Your task to perform on an android device: Show me the alarms in the clock app Image 0: 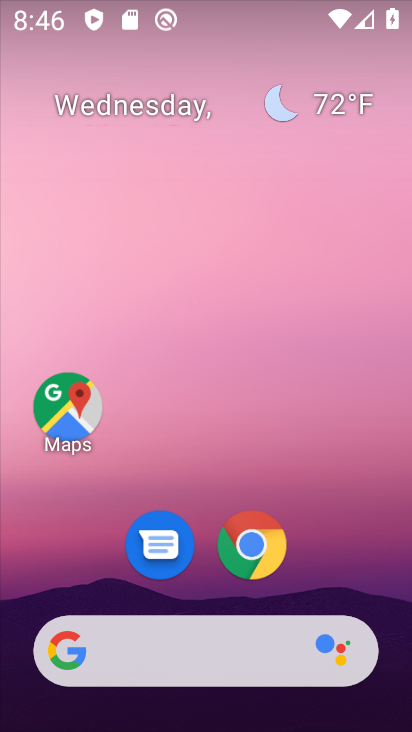
Step 0: drag from (299, 682) to (194, 127)
Your task to perform on an android device: Show me the alarms in the clock app Image 1: 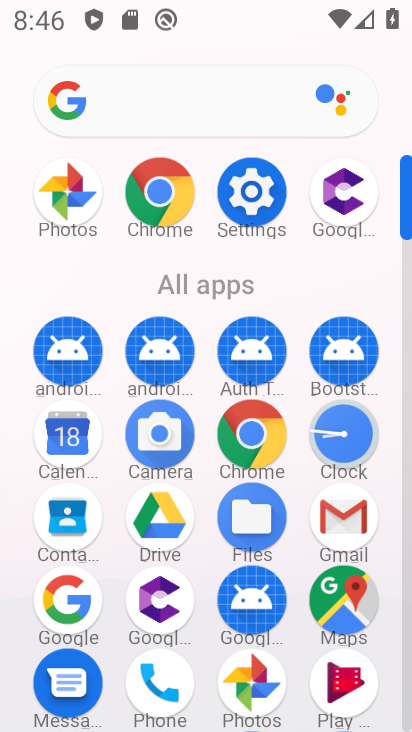
Step 1: click (337, 419)
Your task to perform on an android device: Show me the alarms in the clock app Image 2: 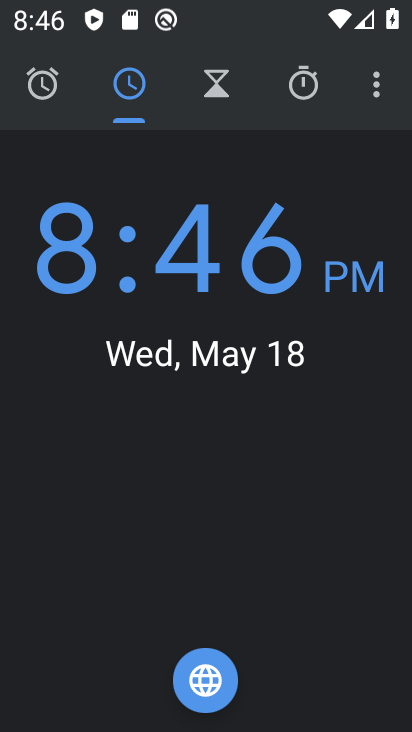
Step 2: click (50, 98)
Your task to perform on an android device: Show me the alarms in the clock app Image 3: 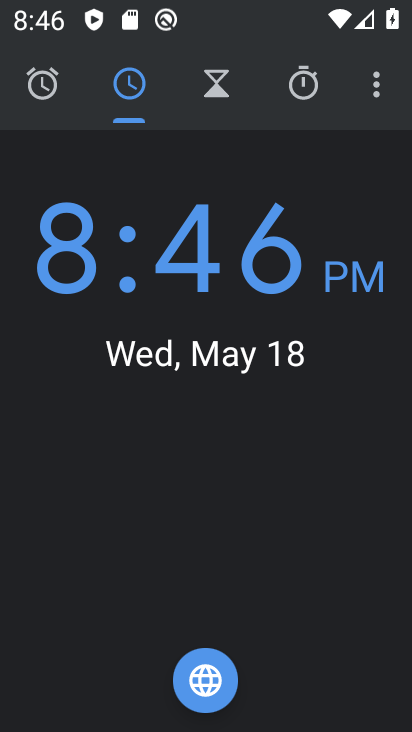
Step 3: click (40, 88)
Your task to perform on an android device: Show me the alarms in the clock app Image 4: 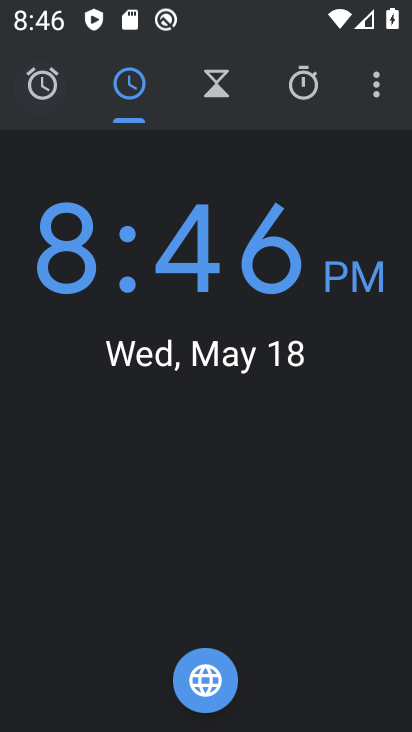
Step 4: click (40, 88)
Your task to perform on an android device: Show me the alarms in the clock app Image 5: 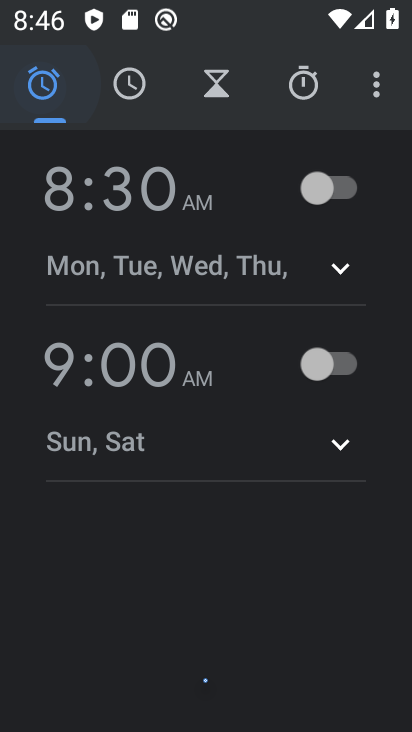
Step 5: click (40, 88)
Your task to perform on an android device: Show me the alarms in the clock app Image 6: 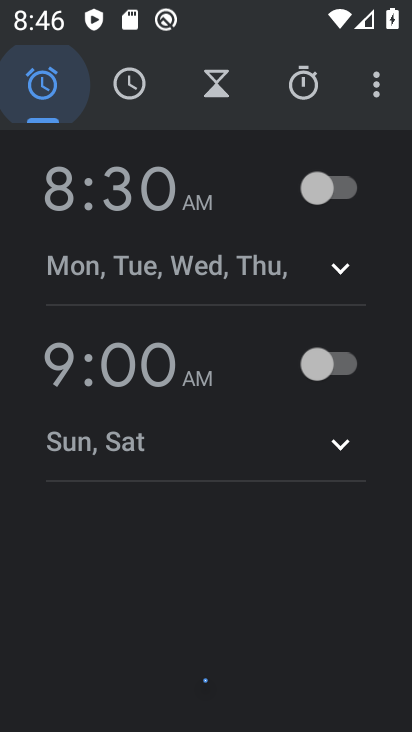
Step 6: click (40, 88)
Your task to perform on an android device: Show me the alarms in the clock app Image 7: 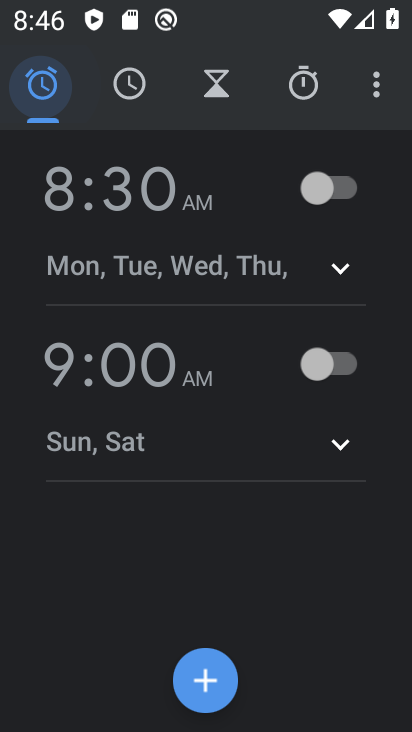
Step 7: click (40, 88)
Your task to perform on an android device: Show me the alarms in the clock app Image 8: 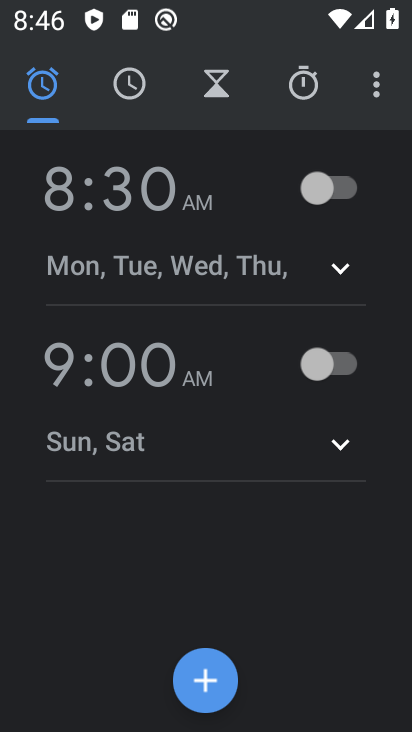
Step 8: press back button
Your task to perform on an android device: Show me the alarms in the clock app Image 9: 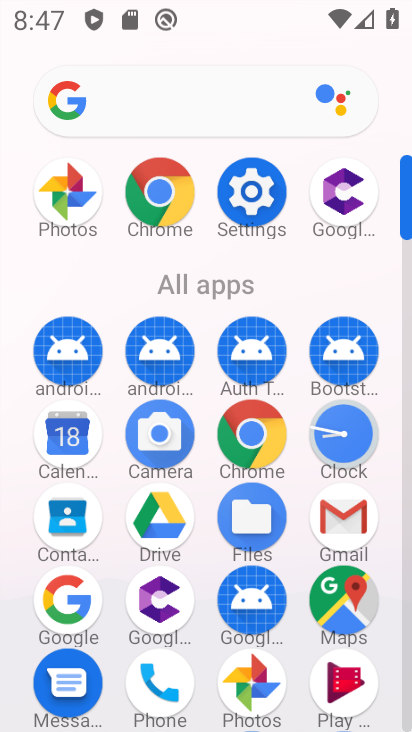
Step 9: click (336, 425)
Your task to perform on an android device: Show me the alarms in the clock app Image 10: 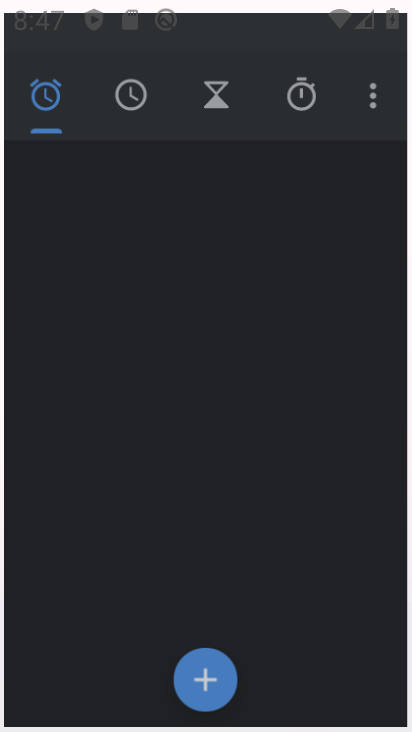
Step 10: click (335, 420)
Your task to perform on an android device: Show me the alarms in the clock app Image 11: 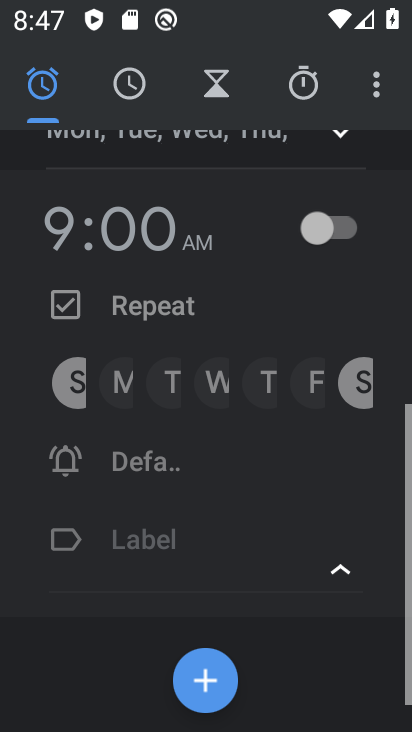
Step 11: click (335, 420)
Your task to perform on an android device: Show me the alarms in the clock app Image 12: 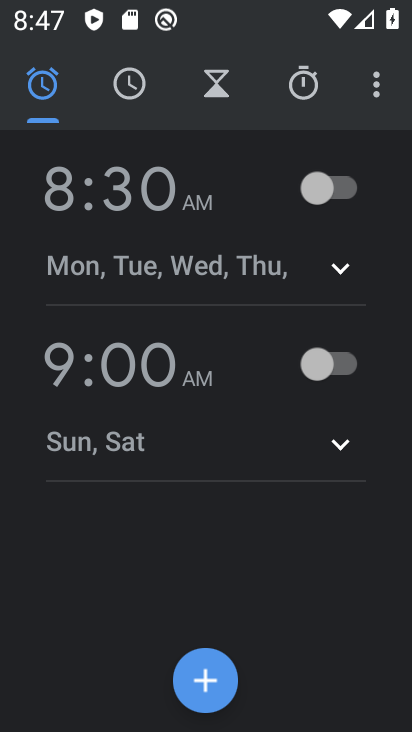
Step 12: click (312, 193)
Your task to perform on an android device: Show me the alarms in the clock app Image 13: 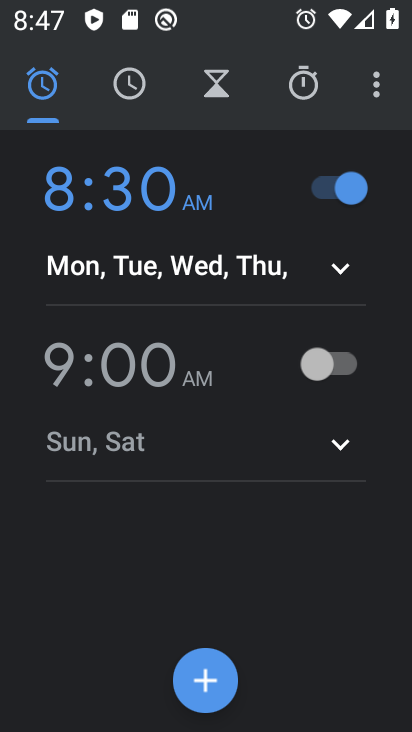
Step 13: task complete